Your task to perform on an android device: find snoozed emails in the gmail app Image 0: 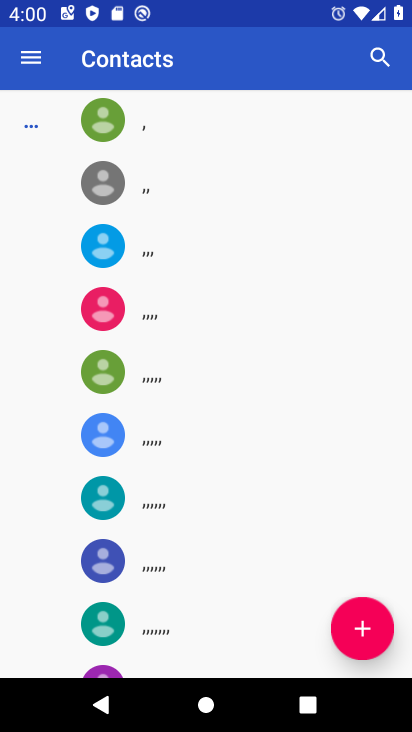
Step 0: press home button
Your task to perform on an android device: find snoozed emails in the gmail app Image 1: 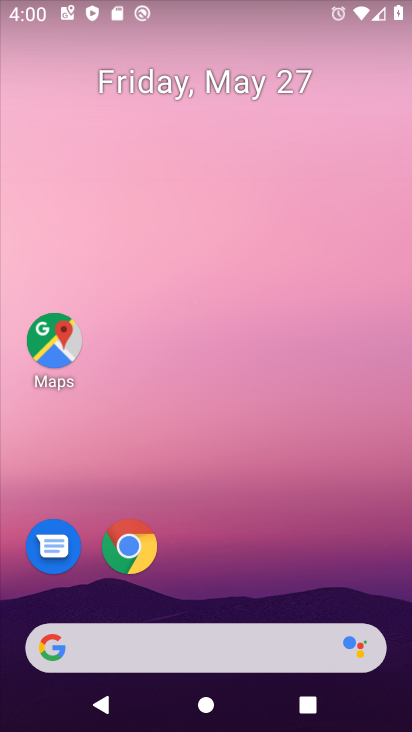
Step 1: drag from (204, 602) to (220, 216)
Your task to perform on an android device: find snoozed emails in the gmail app Image 2: 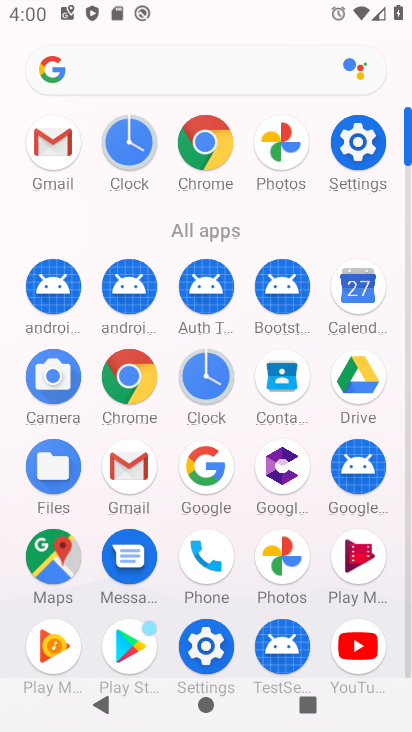
Step 2: click (125, 455)
Your task to perform on an android device: find snoozed emails in the gmail app Image 3: 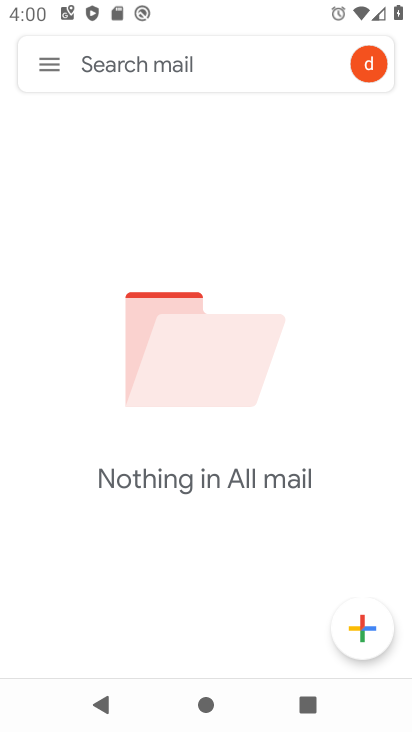
Step 3: click (37, 56)
Your task to perform on an android device: find snoozed emails in the gmail app Image 4: 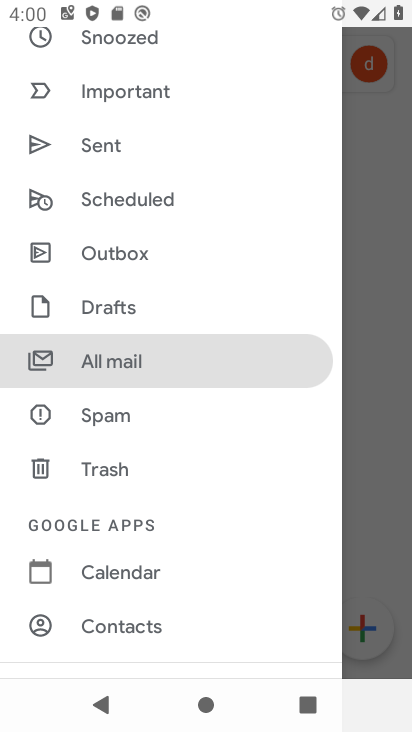
Step 4: click (161, 36)
Your task to perform on an android device: find snoozed emails in the gmail app Image 5: 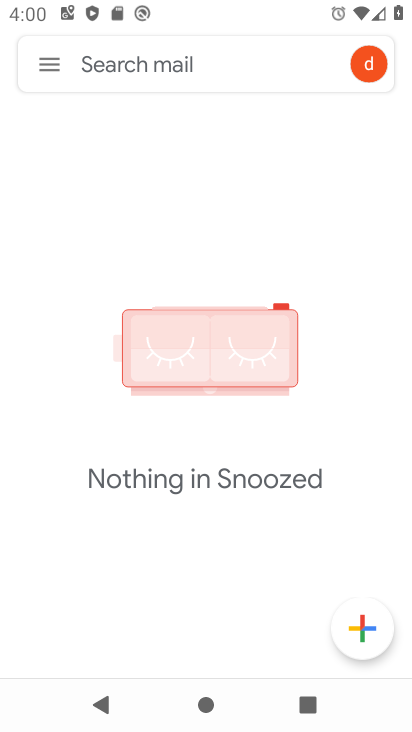
Step 5: task complete